Your task to perform on an android device: What's the weather today? Image 0: 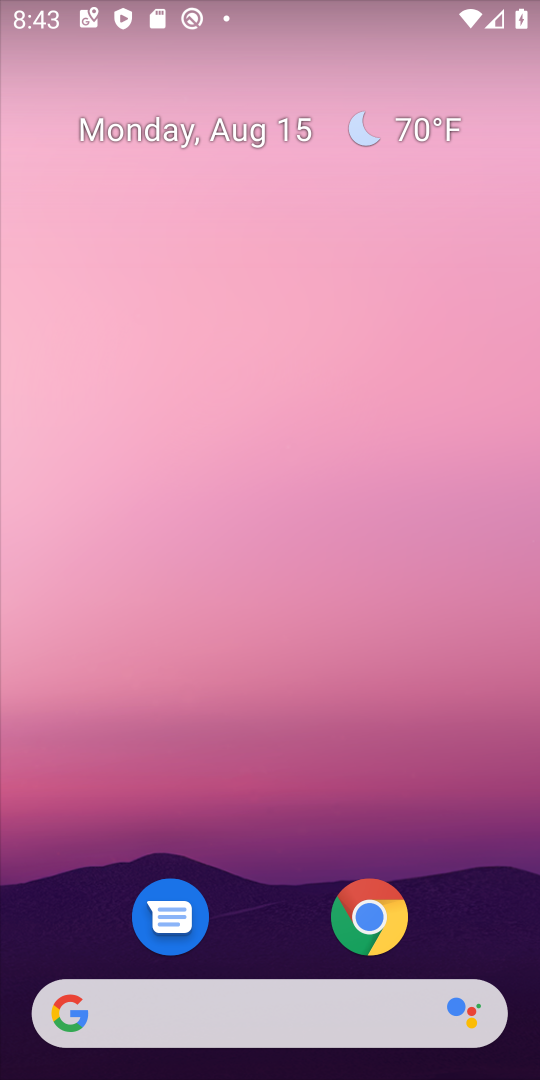
Step 0: click (426, 134)
Your task to perform on an android device: What's the weather today? Image 1: 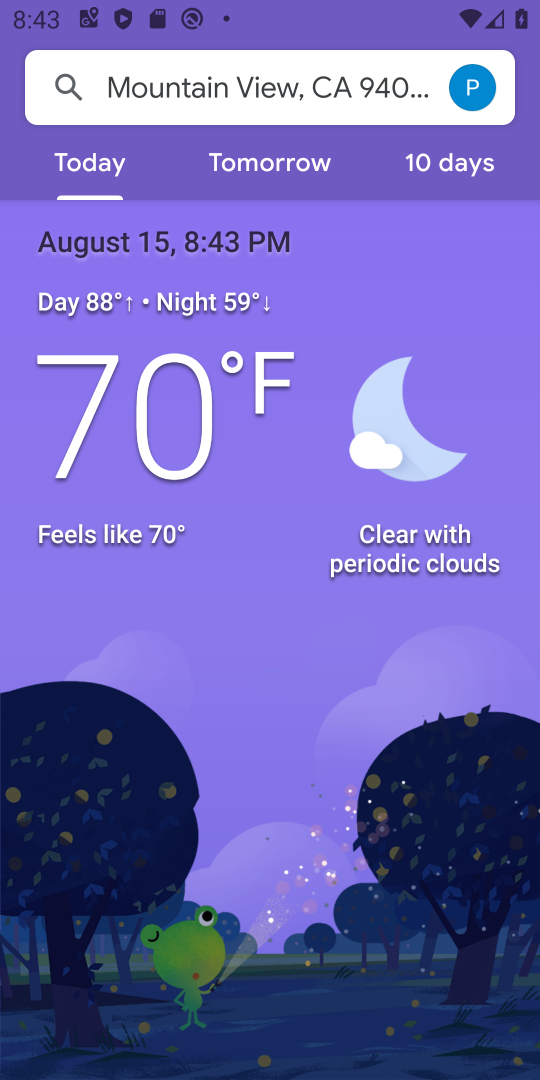
Step 1: task complete